Your task to perform on an android device: What is the news today? Image 0: 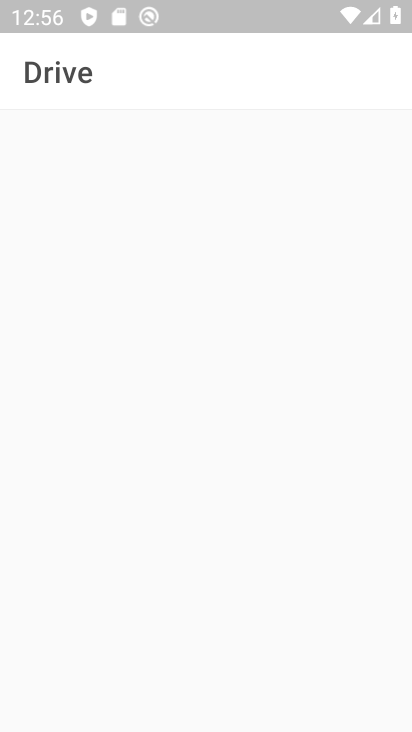
Step 0: press home button
Your task to perform on an android device: What is the news today? Image 1: 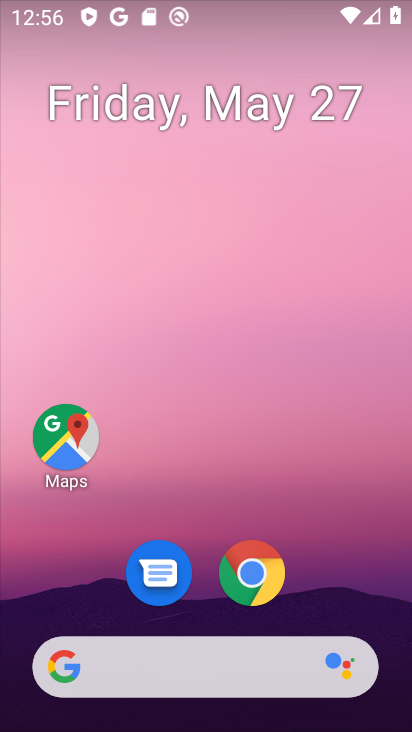
Step 1: click (207, 668)
Your task to perform on an android device: What is the news today? Image 2: 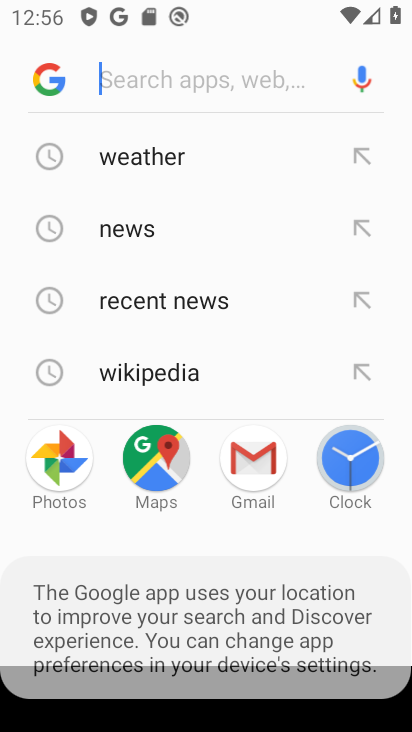
Step 2: click (145, 235)
Your task to perform on an android device: What is the news today? Image 3: 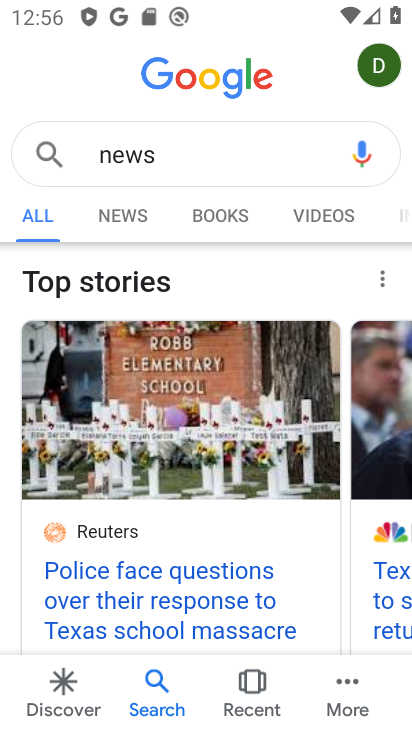
Step 3: click (110, 213)
Your task to perform on an android device: What is the news today? Image 4: 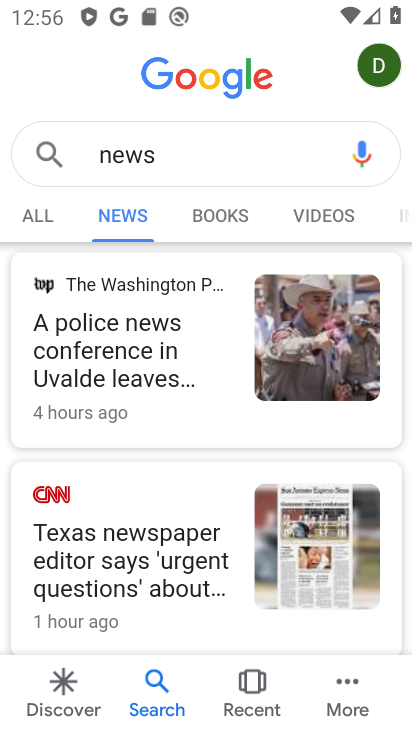
Step 4: task complete